Your task to perform on an android device: What's on my calendar today? Image 0: 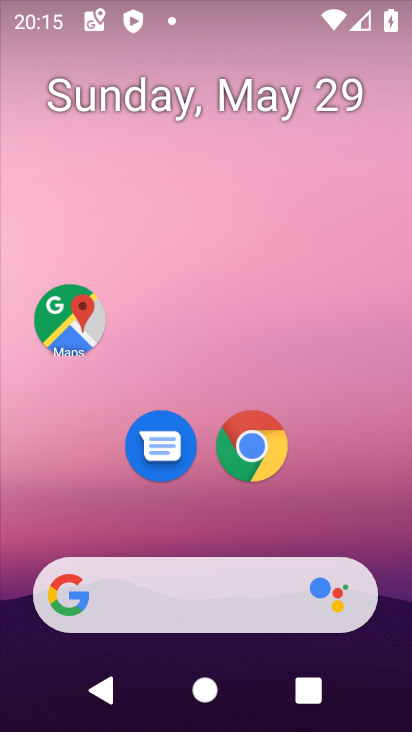
Step 0: drag from (190, 577) to (214, 222)
Your task to perform on an android device: What's on my calendar today? Image 1: 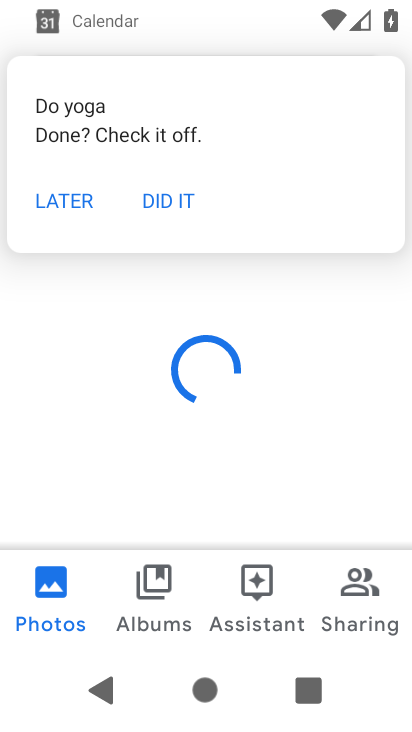
Step 1: press home button
Your task to perform on an android device: What's on my calendar today? Image 2: 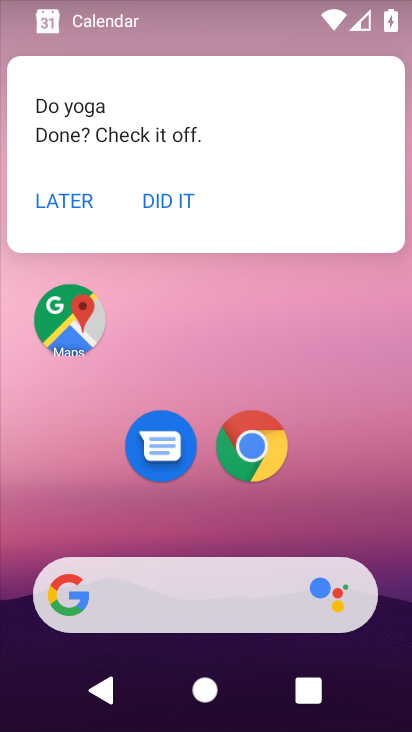
Step 2: click (77, 202)
Your task to perform on an android device: What's on my calendar today? Image 3: 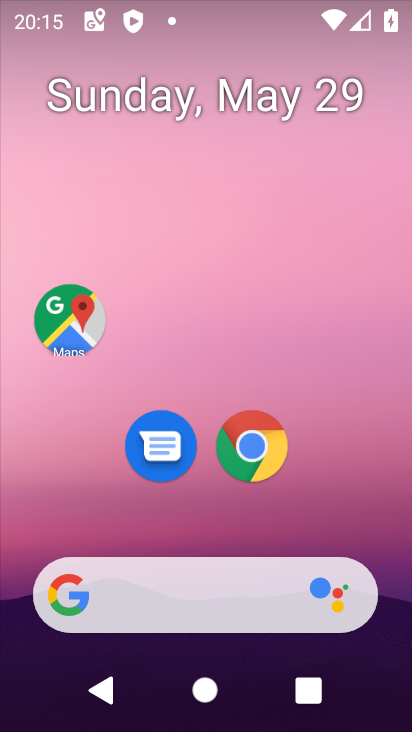
Step 3: drag from (196, 572) to (221, 78)
Your task to perform on an android device: What's on my calendar today? Image 4: 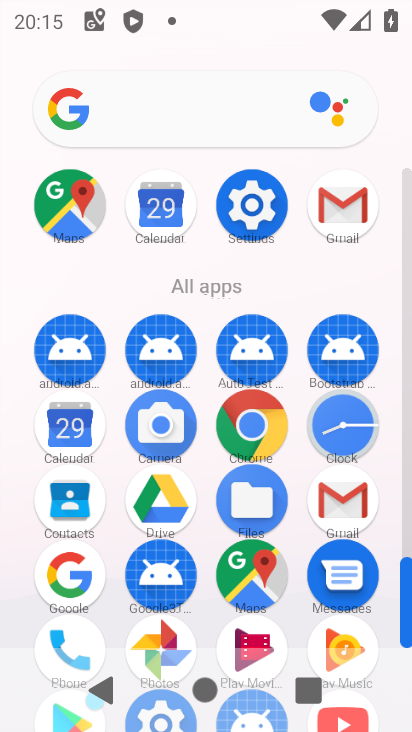
Step 4: click (62, 436)
Your task to perform on an android device: What's on my calendar today? Image 5: 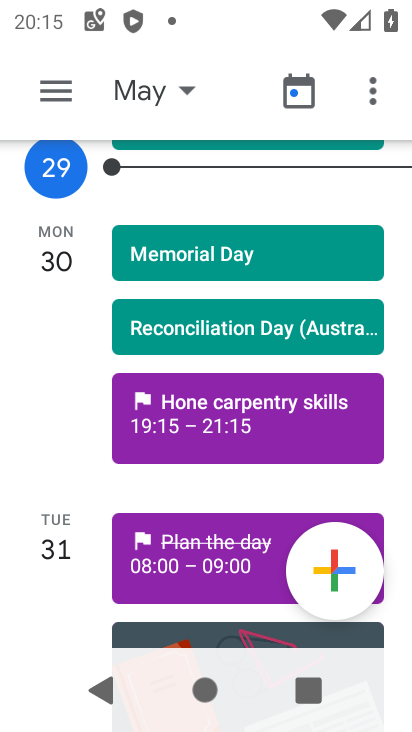
Step 5: task complete